Your task to perform on an android device: uninstall "Truecaller" Image 0: 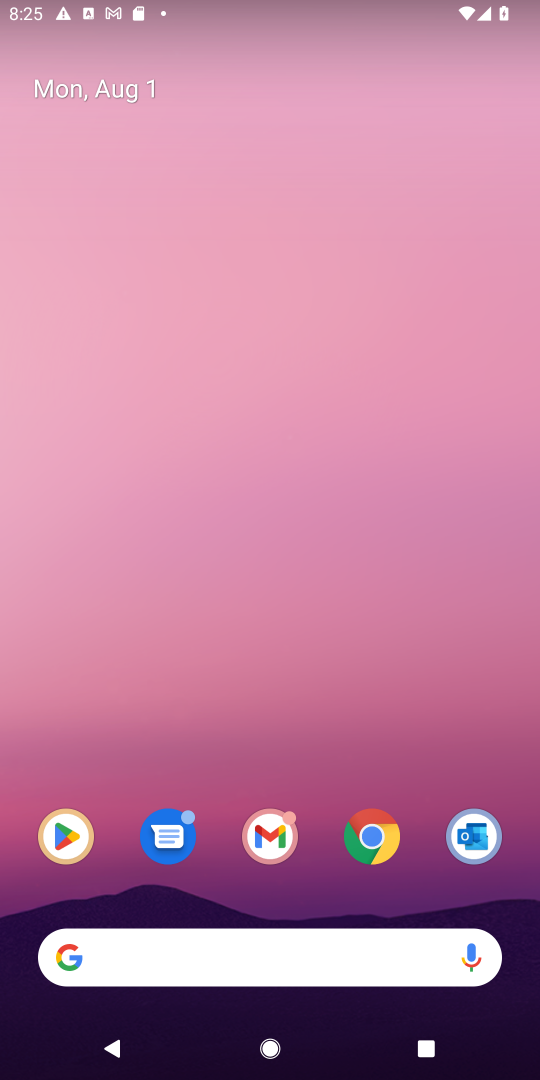
Step 0: click (70, 841)
Your task to perform on an android device: uninstall "Truecaller" Image 1: 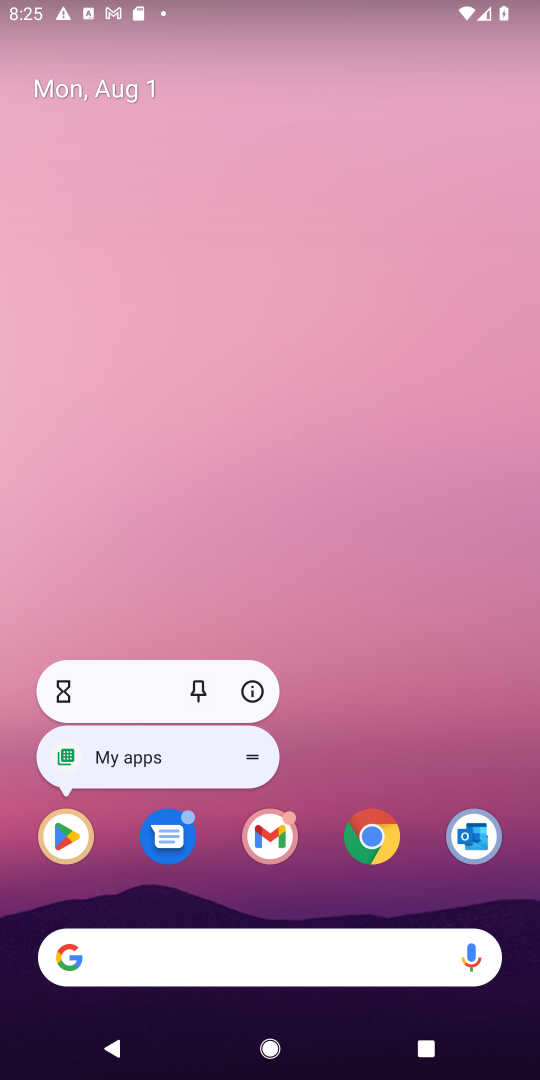
Step 1: click (74, 838)
Your task to perform on an android device: uninstall "Truecaller" Image 2: 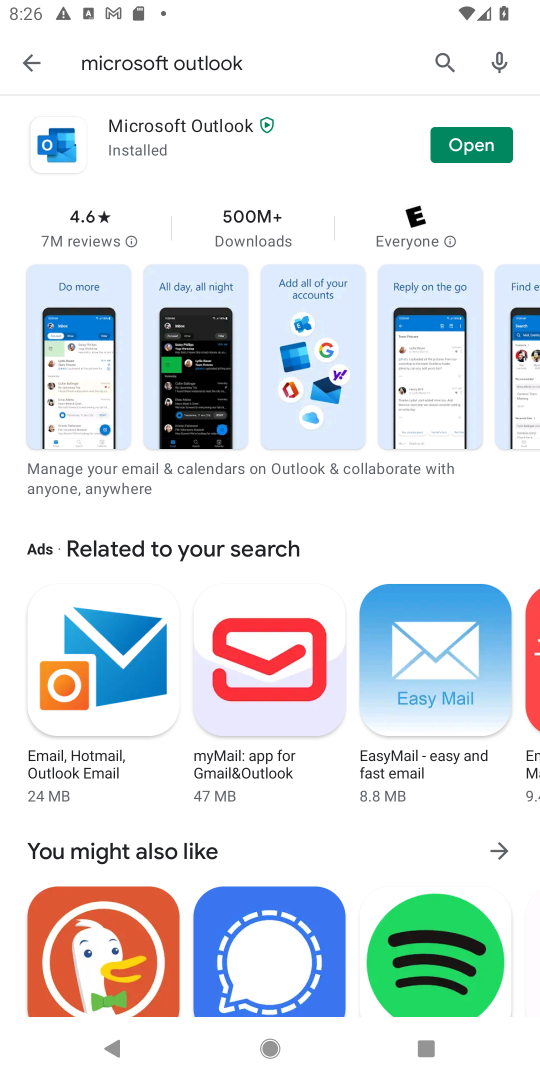
Step 2: click (446, 47)
Your task to perform on an android device: uninstall "Truecaller" Image 3: 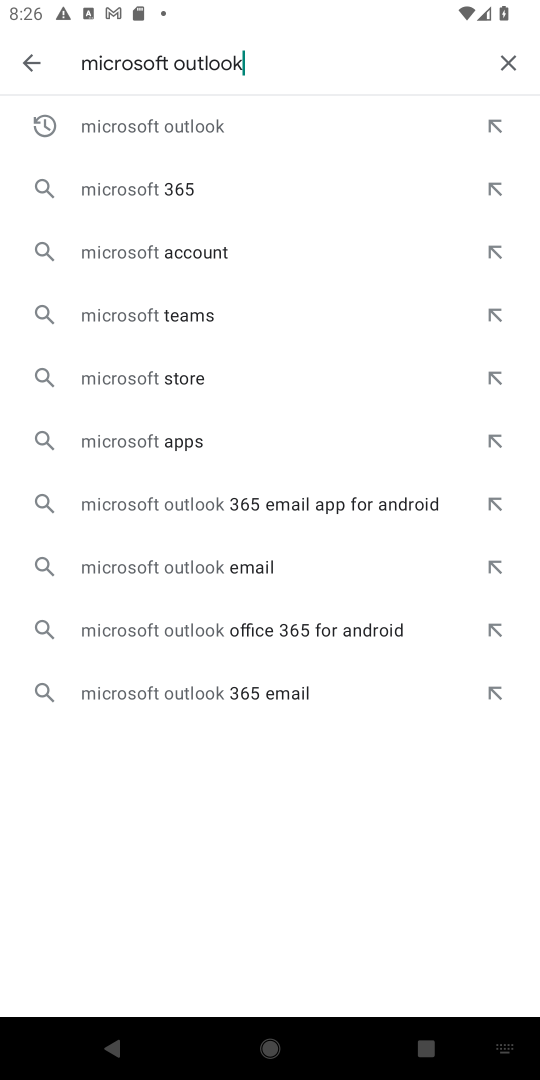
Step 3: click (508, 65)
Your task to perform on an android device: uninstall "Truecaller" Image 4: 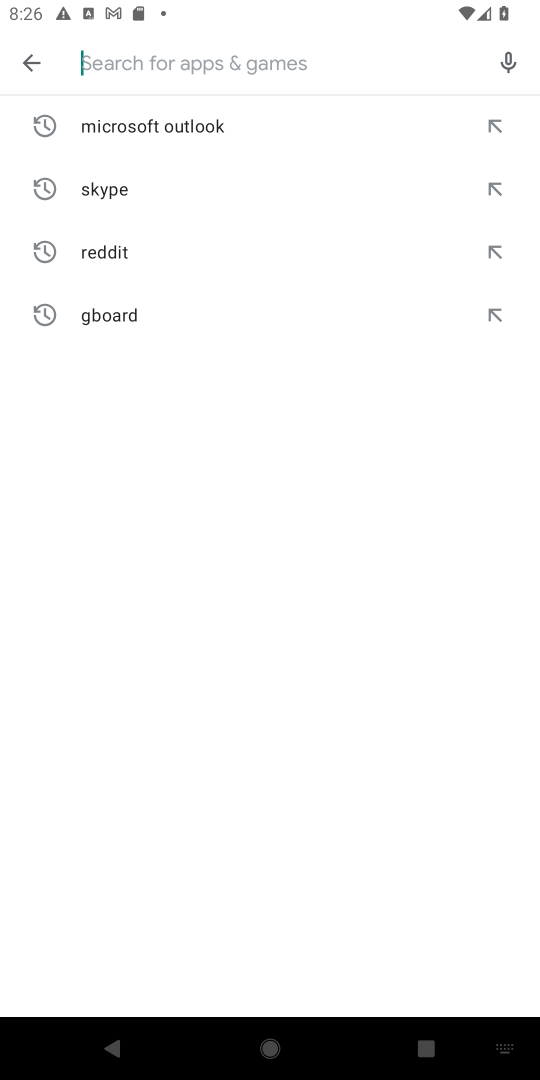
Step 4: type "Truecaller"
Your task to perform on an android device: uninstall "Truecaller" Image 5: 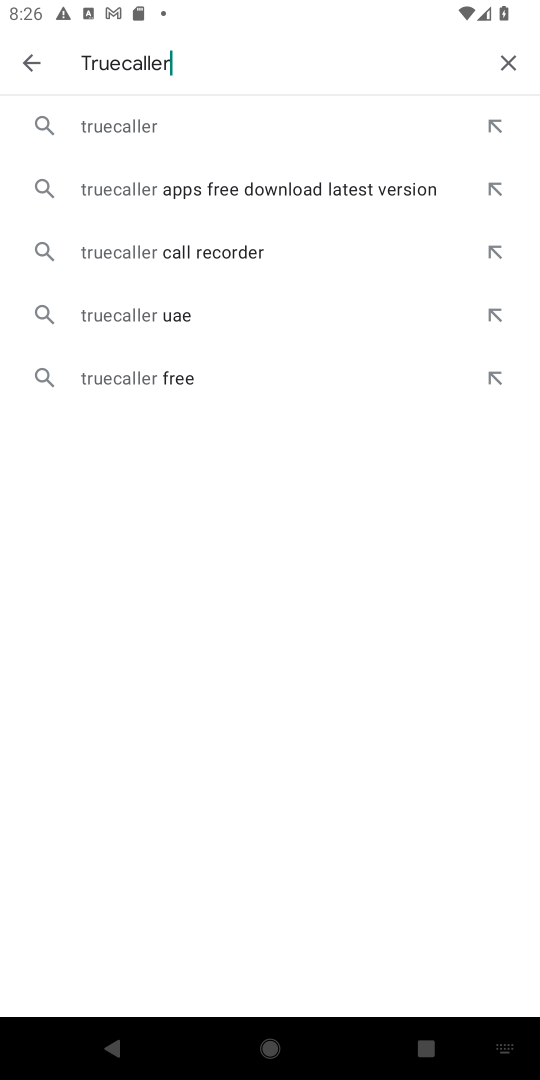
Step 5: click (105, 118)
Your task to perform on an android device: uninstall "Truecaller" Image 6: 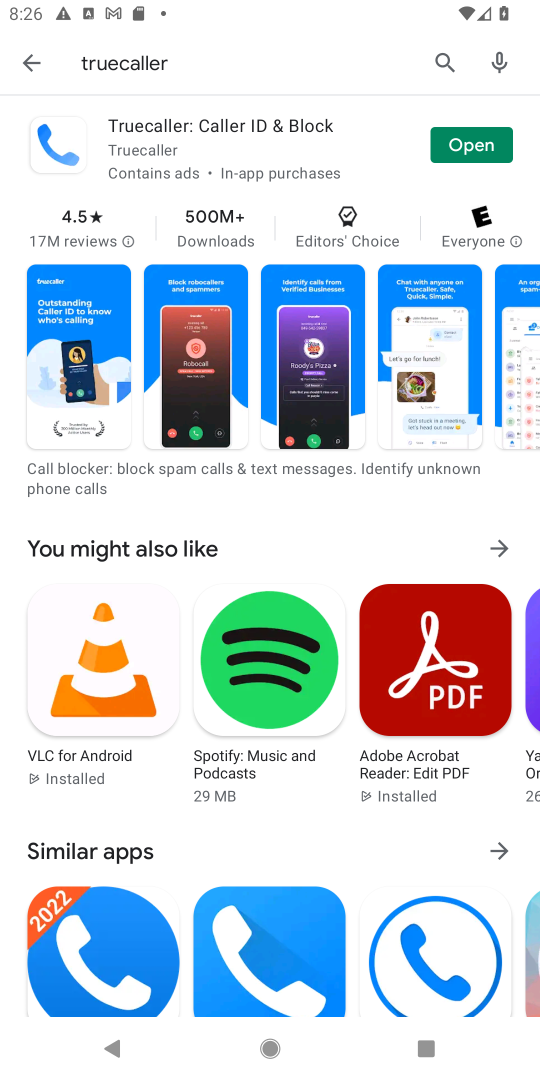
Step 6: click (179, 148)
Your task to perform on an android device: uninstall "Truecaller" Image 7: 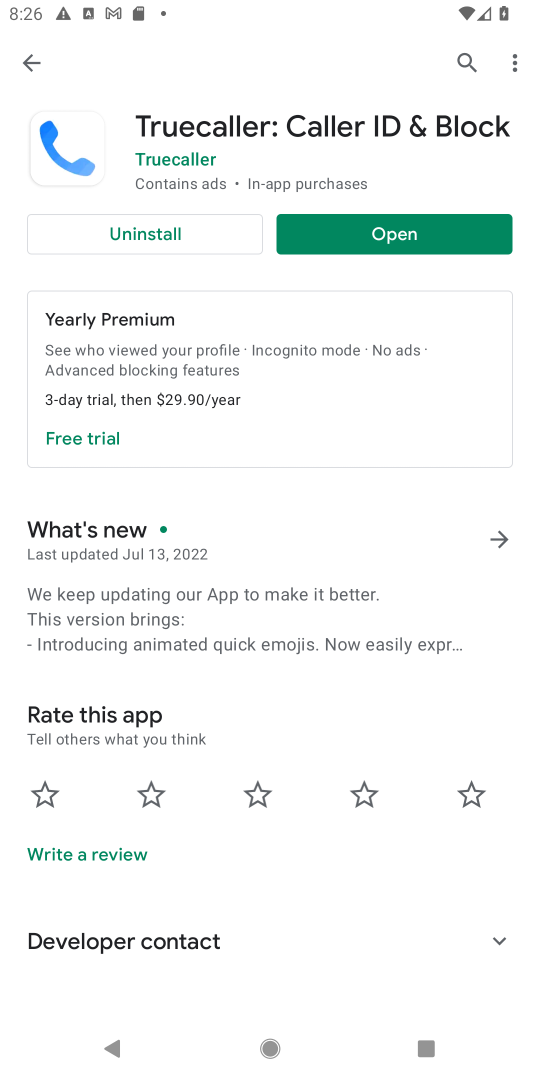
Step 7: click (157, 229)
Your task to perform on an android device: uninstall "Truecaller" Image 8: 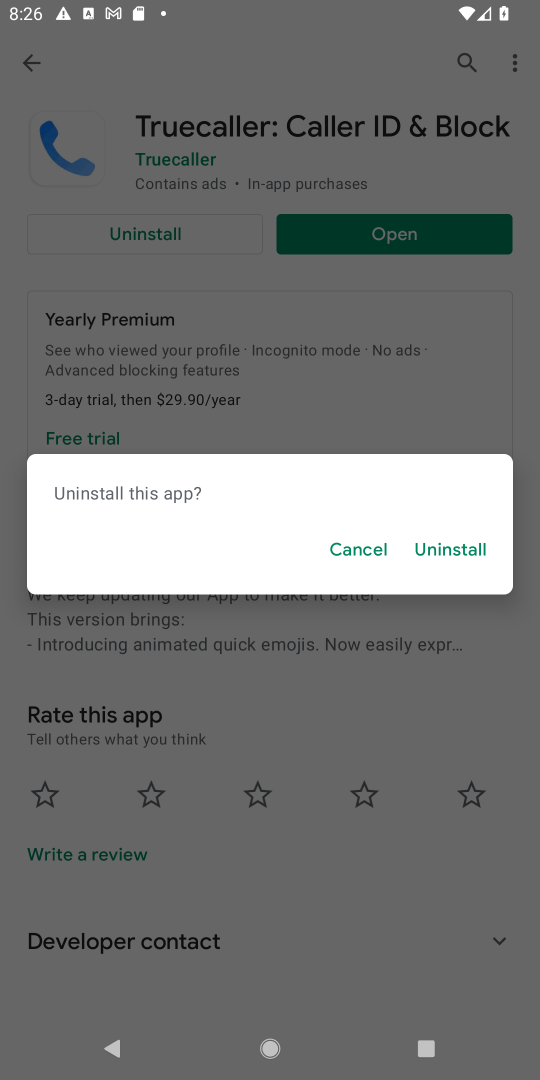
Step 8: click (454, 555)
Your task to perform on an android device: uninstall "Truecaller" Image 9: 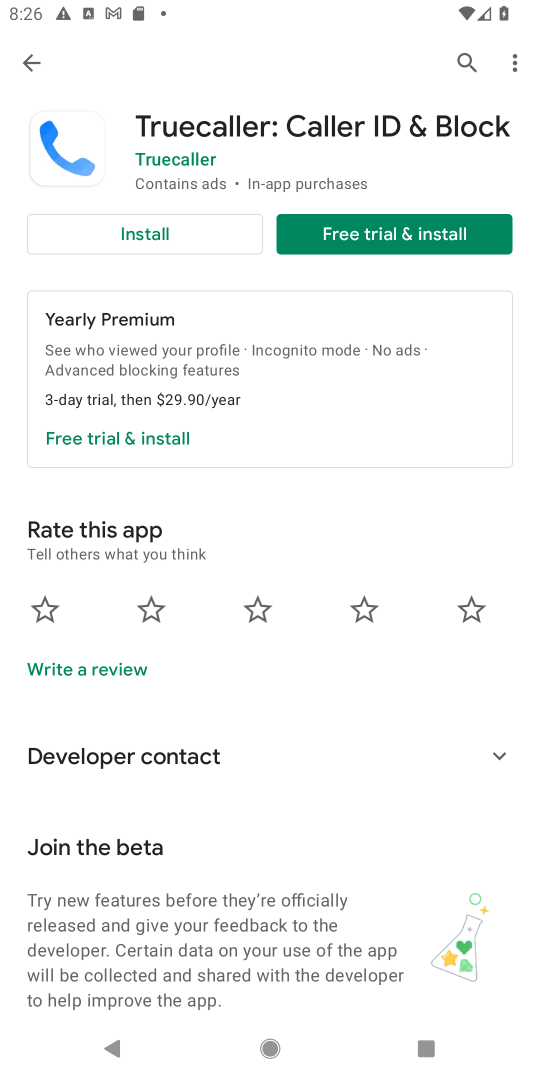
Step 9: task complete